Your task to perform on an android device: Clear the shopping cart on ebay.com. Add "duracell triple a" to the cart on ebay.com, then select checkout. Image 0: 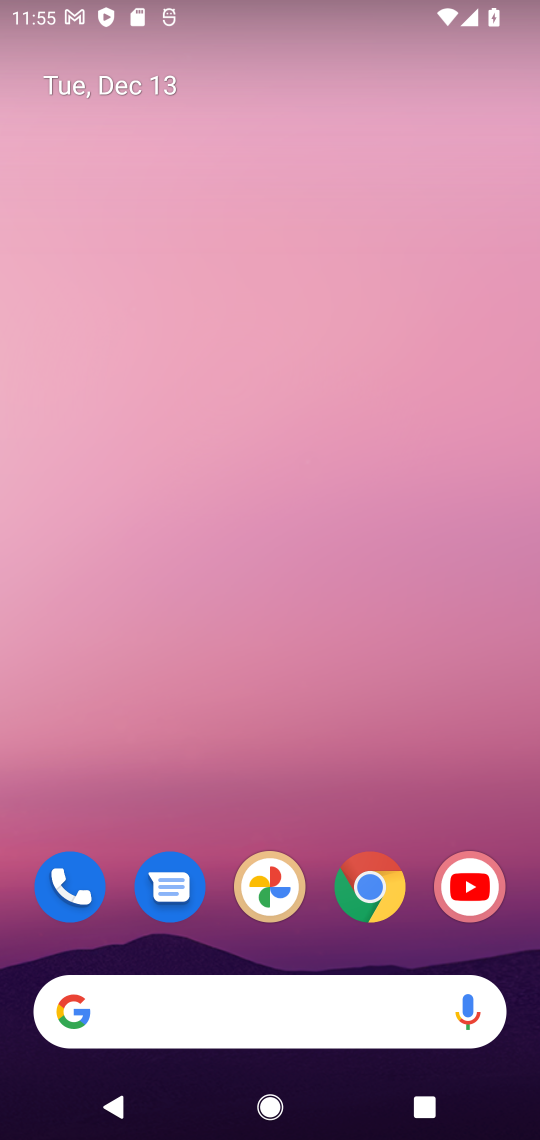
Step 0: drag from (293, 767) to (377, 133)
Your task to perform on an android device: Clear the shopping cart on ebay.com. Add "duracell triple a" to the cart on ebay.com, then select checkout. Image 1: 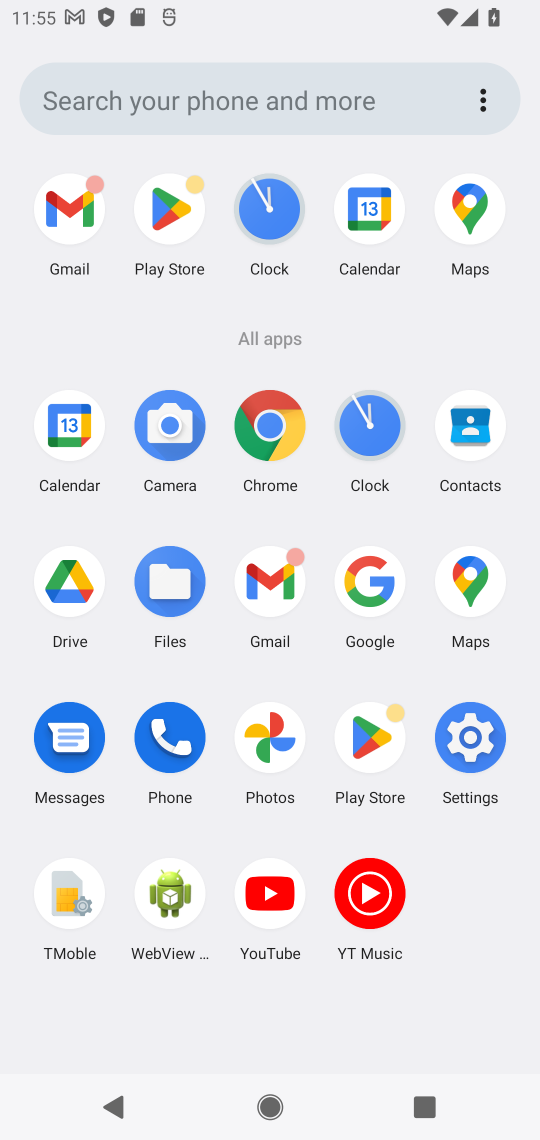
Step 1: click (379, 581)
Your task to perform on an android device: Clear the shopping cart on ebay.com. Add "duracell triple a" to the cart on ebay.com, then select checkout. Image 2: 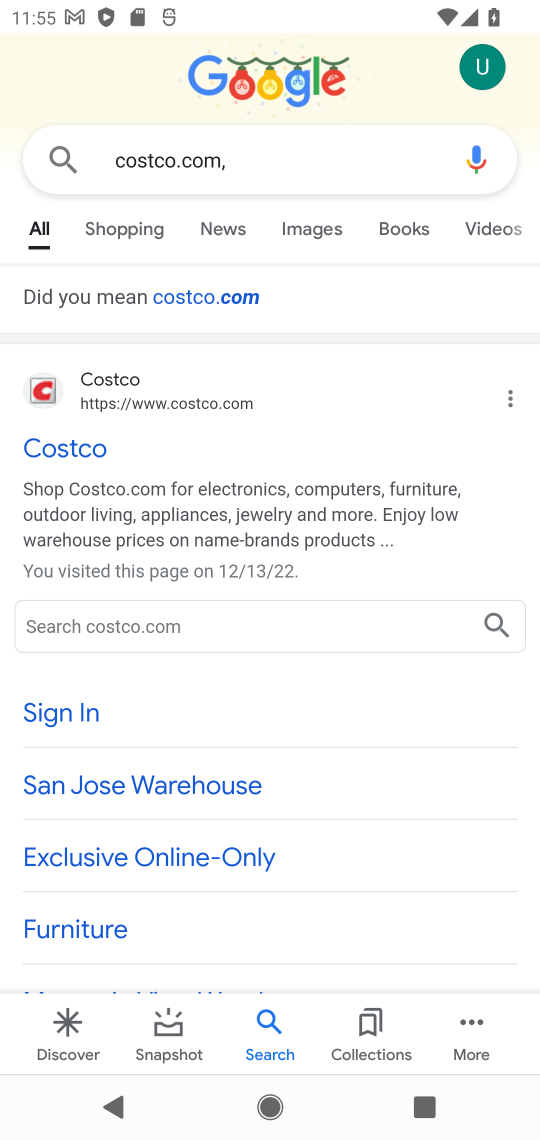
Step 2: click (159, 139)
Your task to perform on an android device: Clear the shopping cart on ebay.com. Add "duracell triple a" to the cart on ebay.com, then select checkout. Image 3: 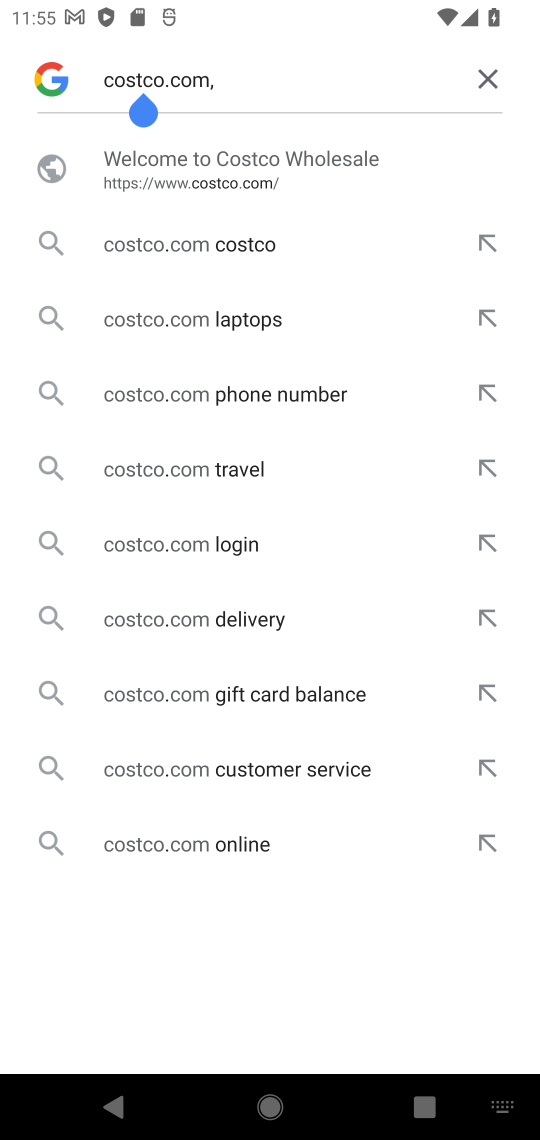
Step 3: click (491, 63)
Your task to perform on an android device: Clear the shopping cart on ebay.com. Add "duracell triple a" to the cart on ebay.com, then select checkout. Image 4: 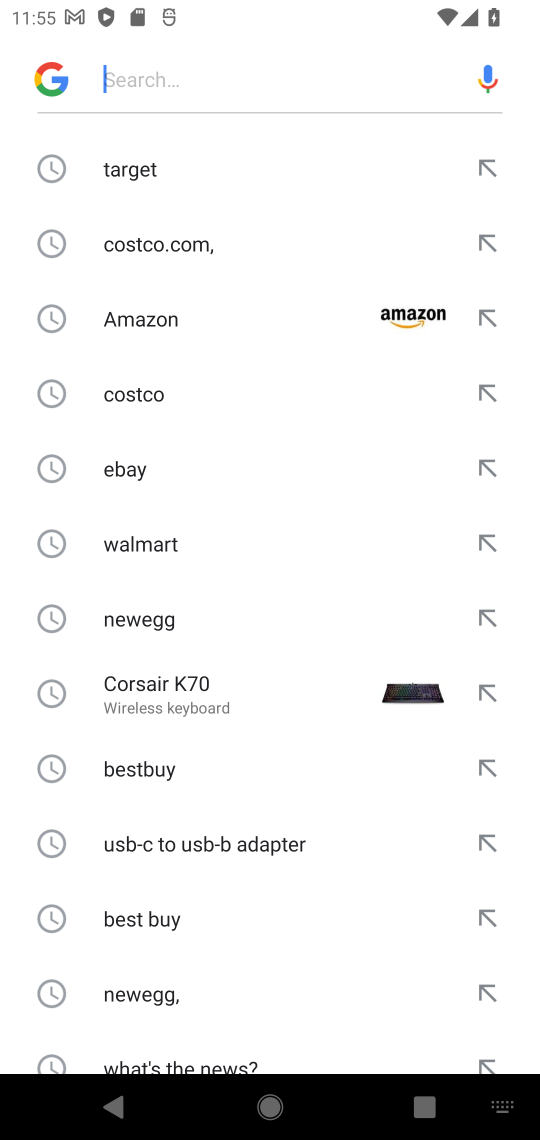
Step 4: click (148, 467)
Your task to perform on an android device: Clear the shopping cart on ebay.com. Add "duracell triple a" to the cart on ebay.com, then select checkout. Image 5: 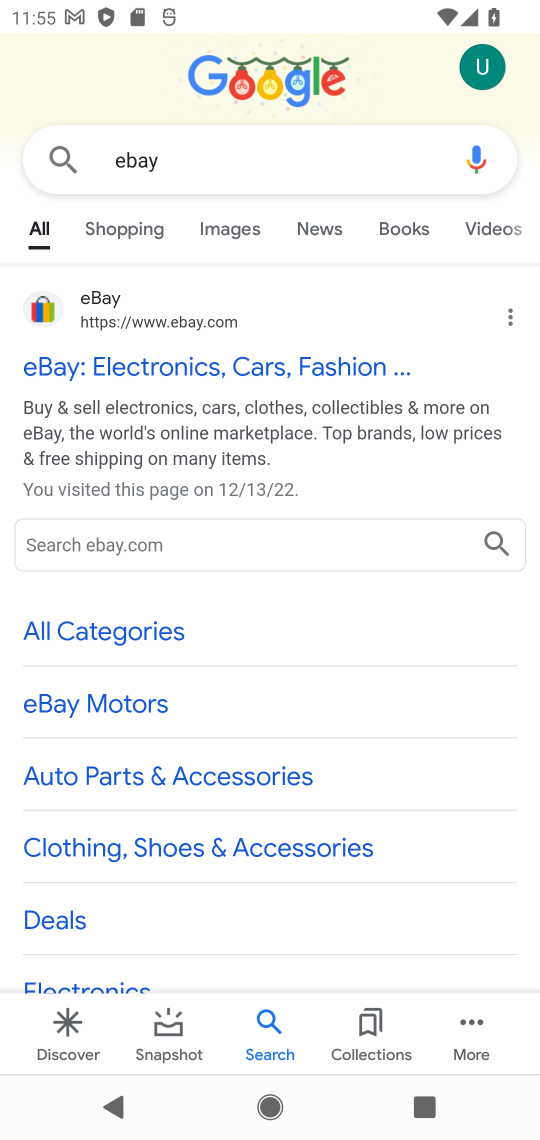
Step 5: click (219, 377)
Your task to perform on an android device: Clear the shopping cart on ebay.com. Add "duracell triple a" to the cart on ebay.com, then select checkout. Image 6: 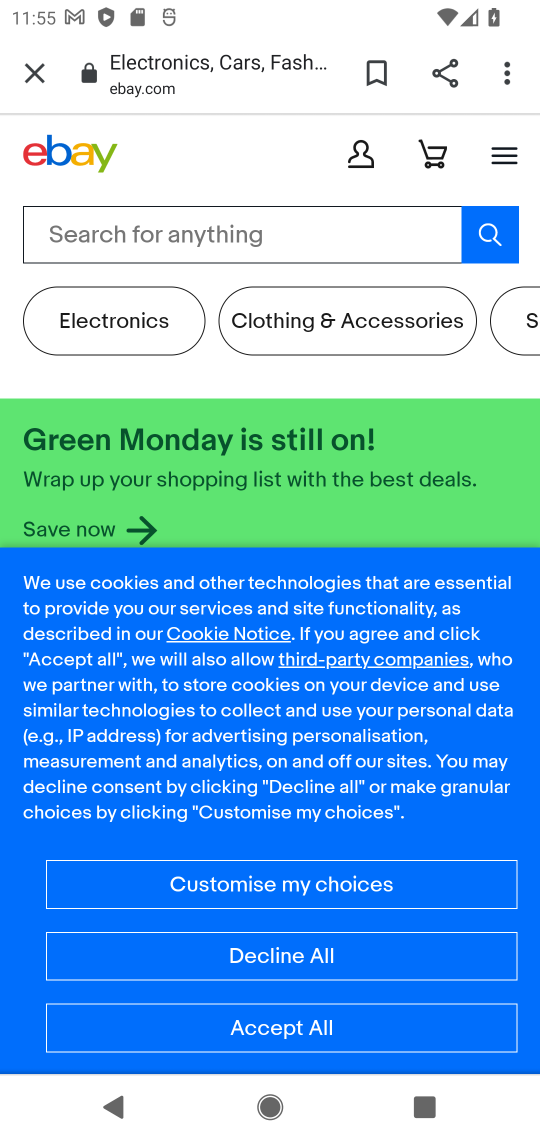
Step 6: click (222, 238)
Your task to perform on an android device: Clear the shopping cart on ebay.com. Add "duracell triple a" to the cart on ebay.com, then select checkout. Image 7: 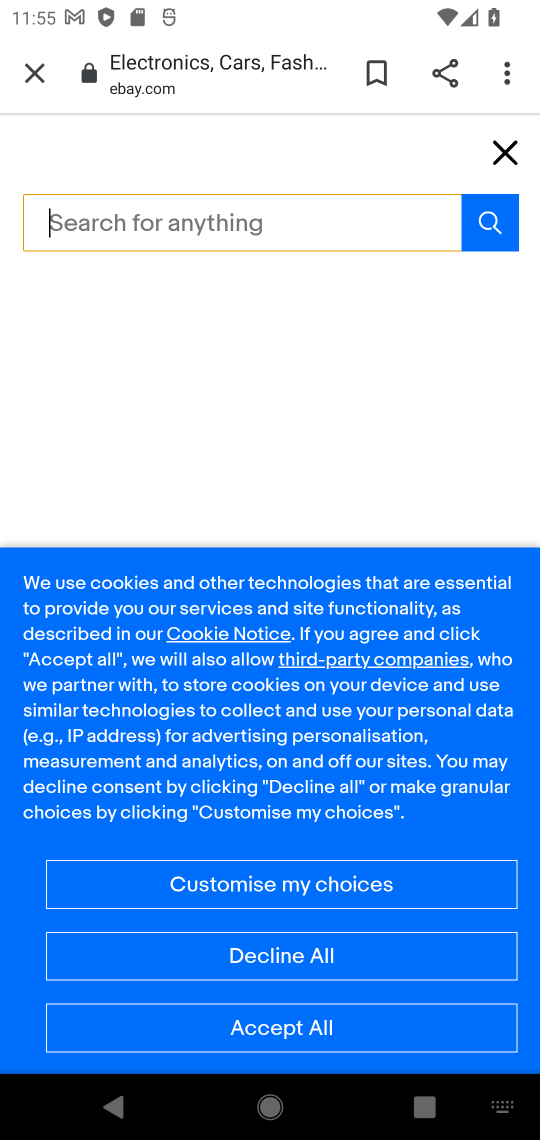
Step 7: type "duracell triple a"
Your task to perform on an android device: Clear the shopping cart on ebay.com. Add "duracell triple a" to the cart on ebay.com, then select checkout. Image 8: 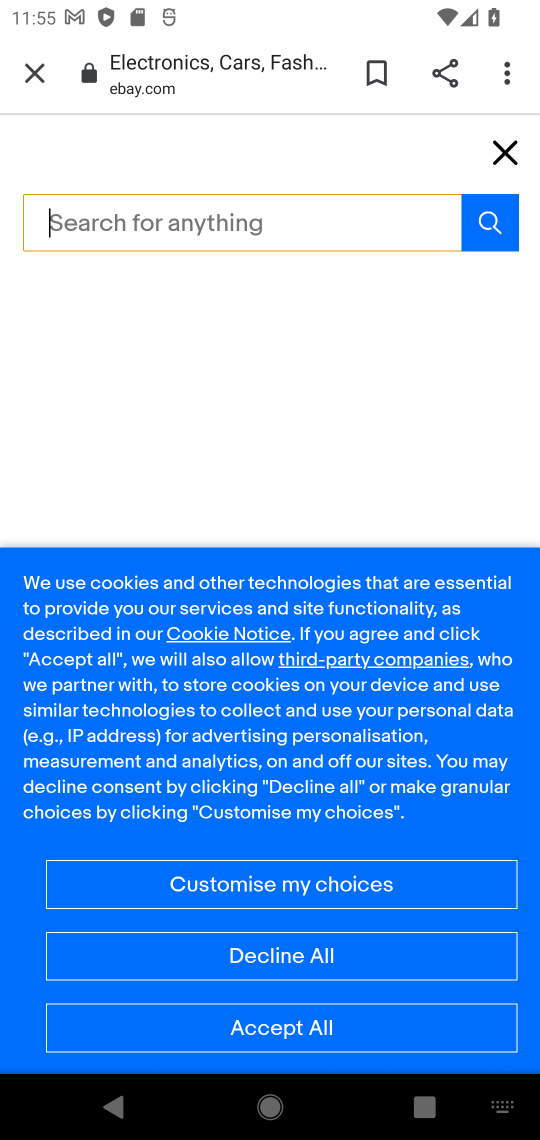
Step 8: click (493, 226)
Your task to perform on an android device: Clear the shopping cart on ebay.com. Add "duracell triple a" to the cart on ebay.com, then select checkout. Image 9: 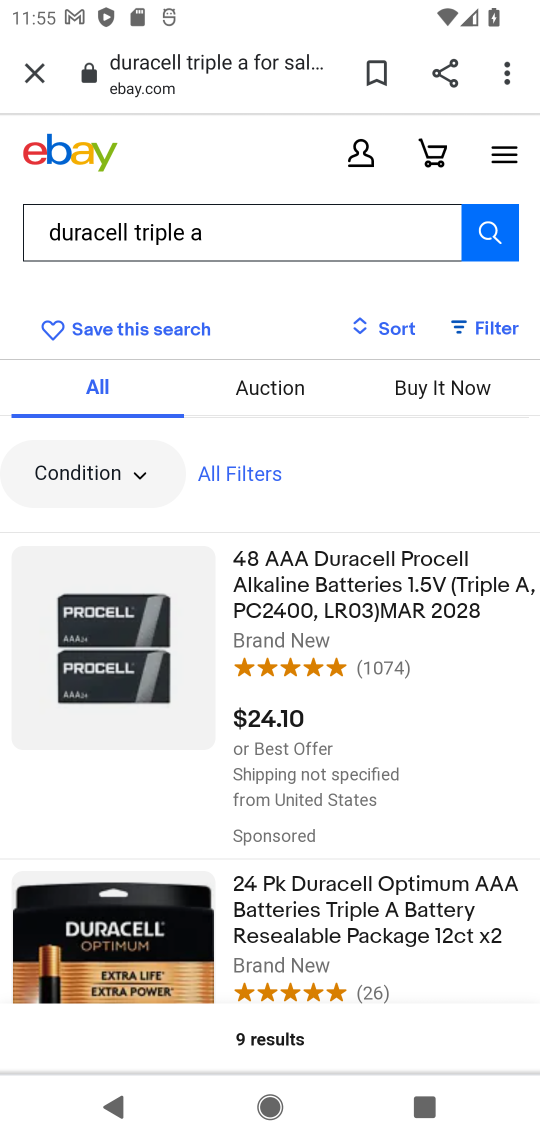
Step 9: click (342, 576)
Your task to perform on an android device: Clear the shopping cart on ebay.com. Add "duracell triple a" to the cart on ebay.com, then select checkout. Image 10: 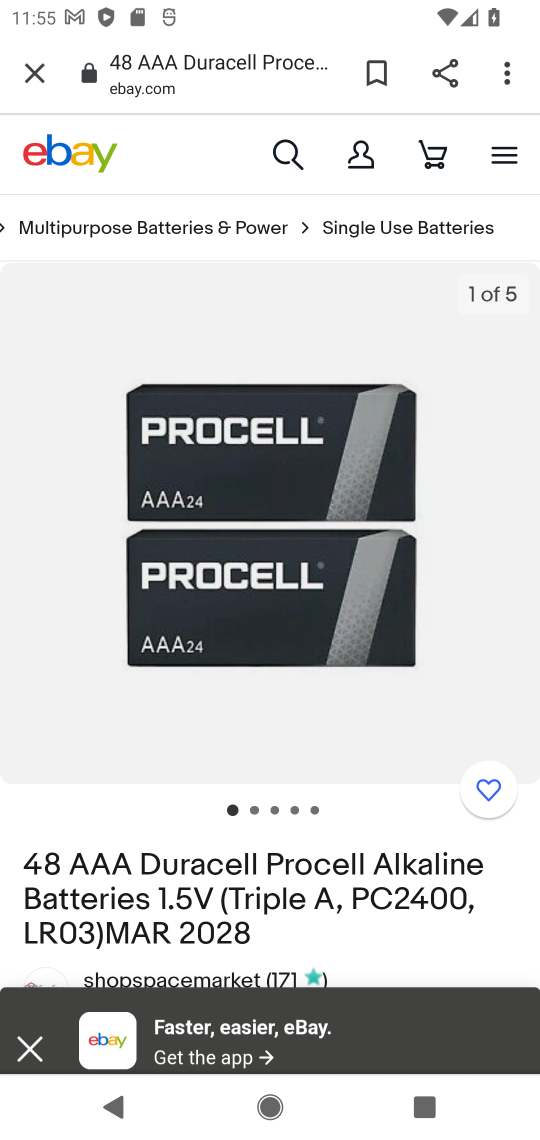
Step 10: drag from (382, 785) to (382, 592)
Your task to perform on an android device: Clear the shopping cart on ebay.com. Add "duracell triple a" to the cart on ebay.com, then select checkout. Image 11: 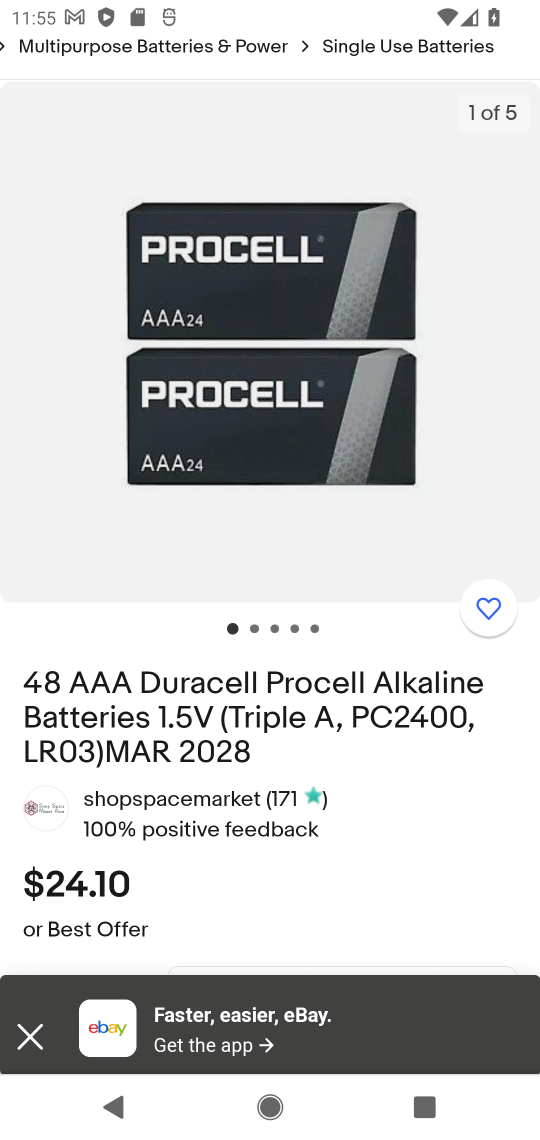
Step 11: drag from (423, 472) to (428, 403)
Your task to perform on an android device: Clear the shopping cart on ebay.com. Add "duracell triple a" to the cart on ebay.com, then select checkout. Image 12: 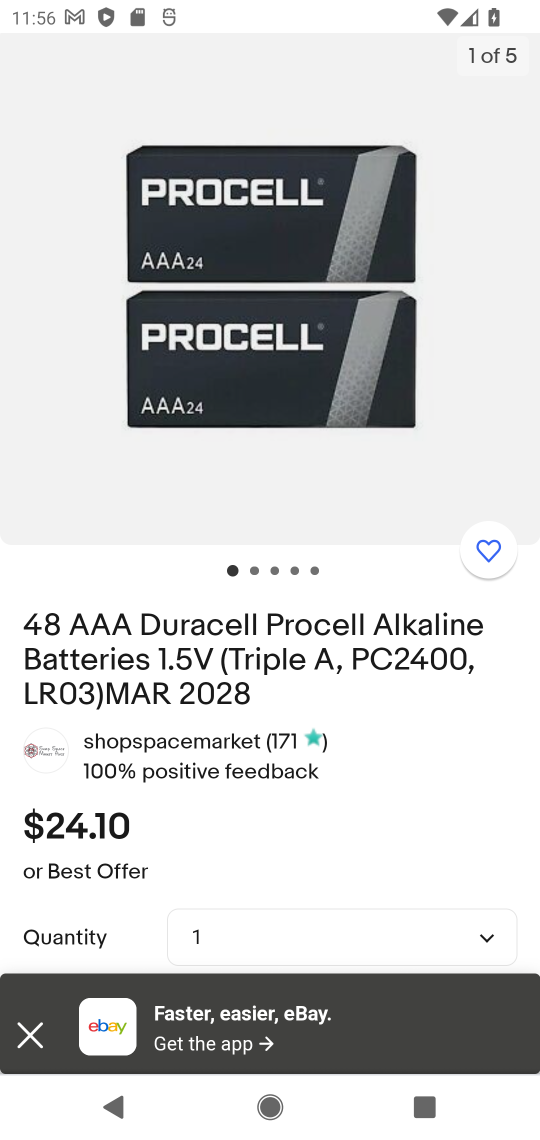
Step 12: drag from (403, 856) to (406, 508)
Your task to perform on an android device: Clear the shopping cart on ebay.com. Add "duracell triple a" to the cart on ebay.com, then select checkout. Image 13: 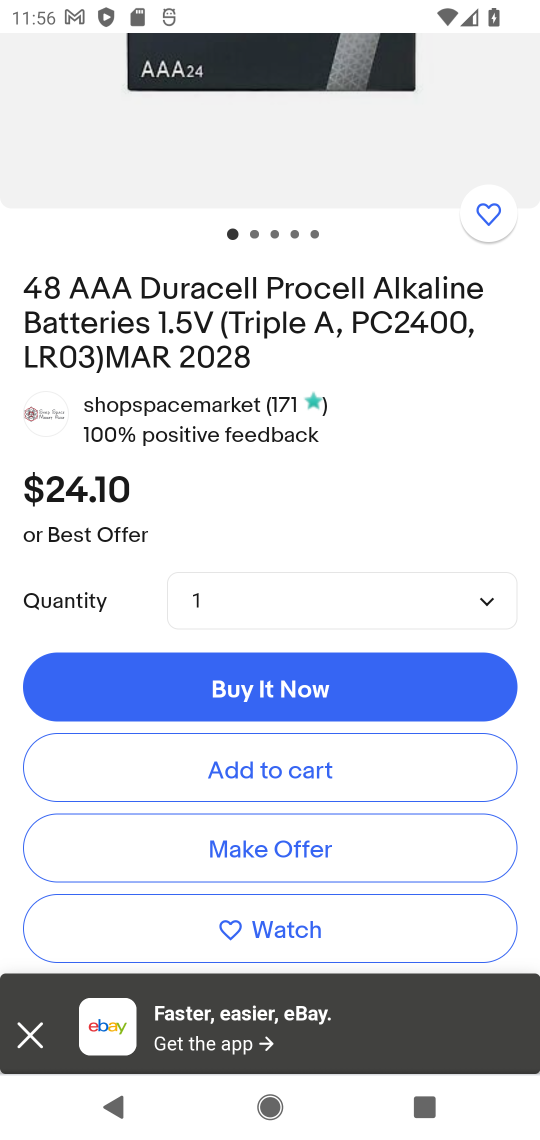
Step 13: click (302, 770)
Your task to perform on an android device: Clear the shopping cart on ebay.com. Add "duracell triple a" to the cart on ebay.com, then select checkout. Image 14: 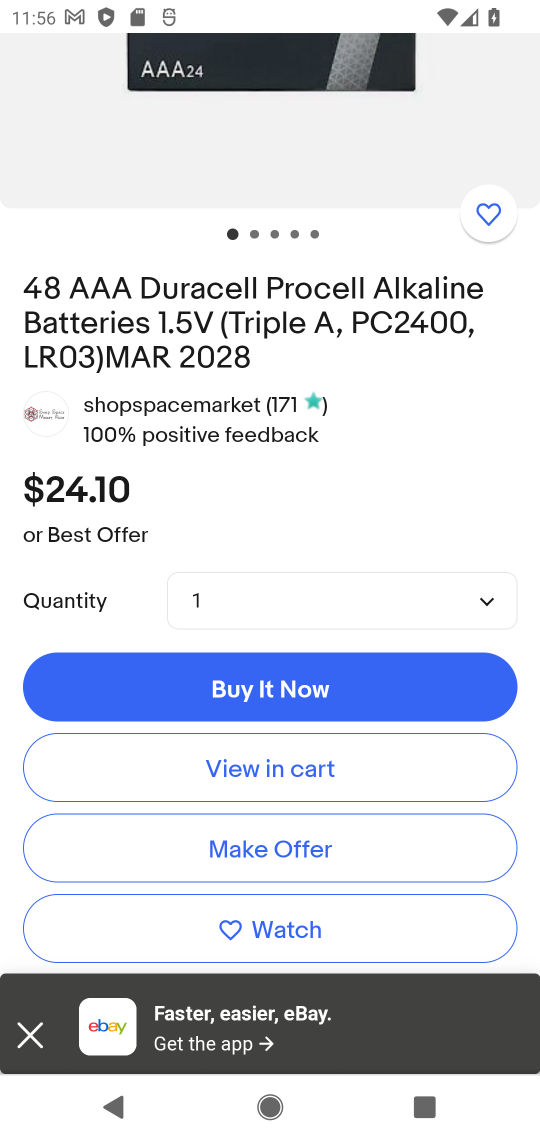
Step 14: click (302, 770)
Your task to perform on an android device: Clear the shopping cart on ebay.com. Add "duracell triple a" to the cart on ebay.com, then select checkout. Image 15: 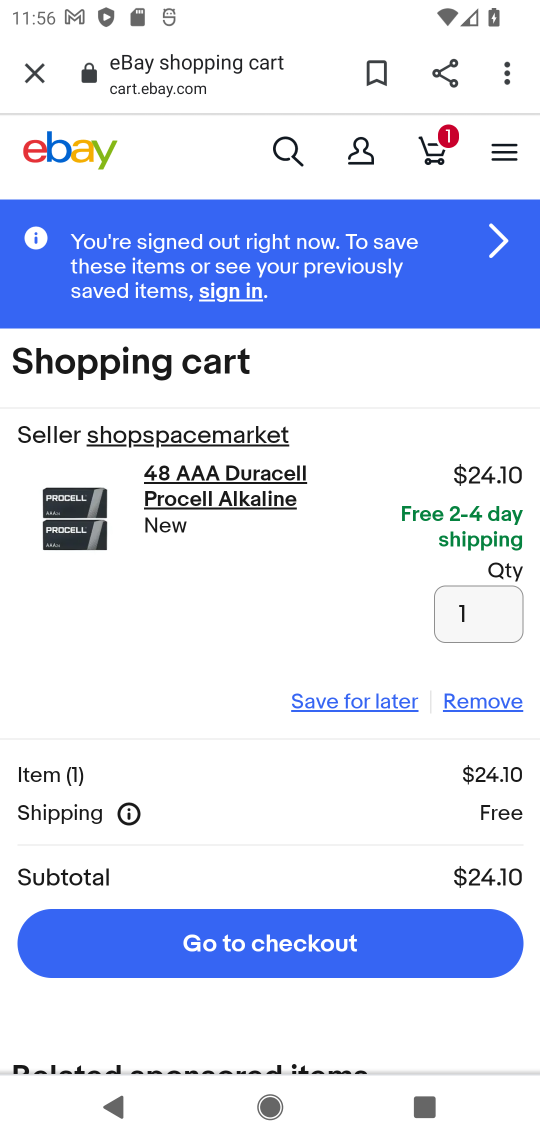
Step 15: click (319, 944)
Your task to perform on an android device: Clear the shopping cart on ebay.com. Add "duracell triple a" to the cart on ebay.com, then select checkout. Image 16: 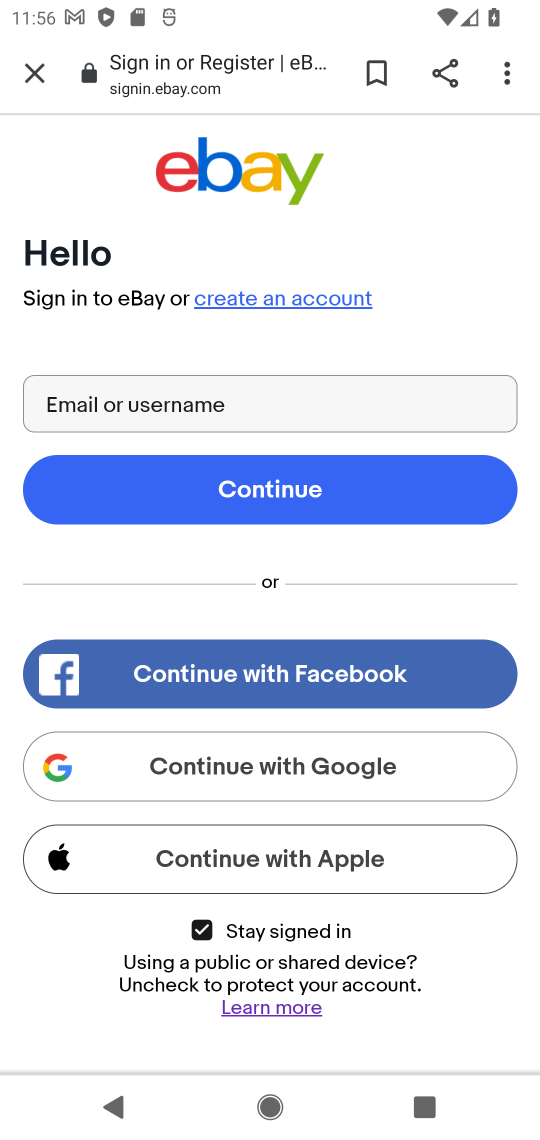
Step 16: task complete